Your task to perform on an android device: turn pop-ups on in chrome Image 0: 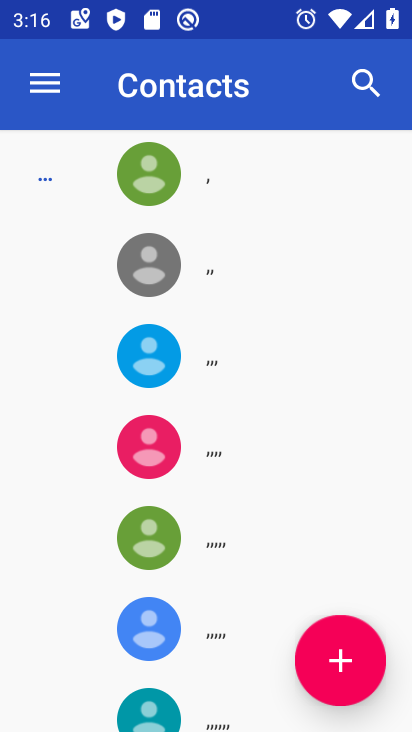
Step 0: press home button
Your task to perform on an android device: turn pop-ups on in chrome Image 1: 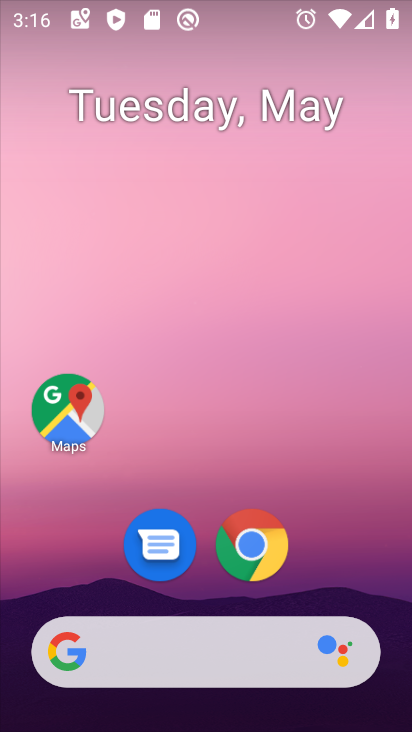
Step 1: click (258, 559)
Your task to perform on an android device: turn pop-ups on in chrome Image 2: 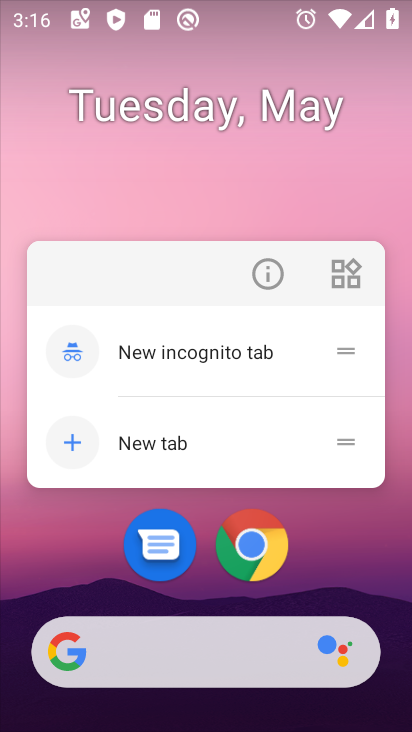
Step 2: click (258, 560)
Your task to perform on an android device: turn pop-ups on in chrome Image 3: 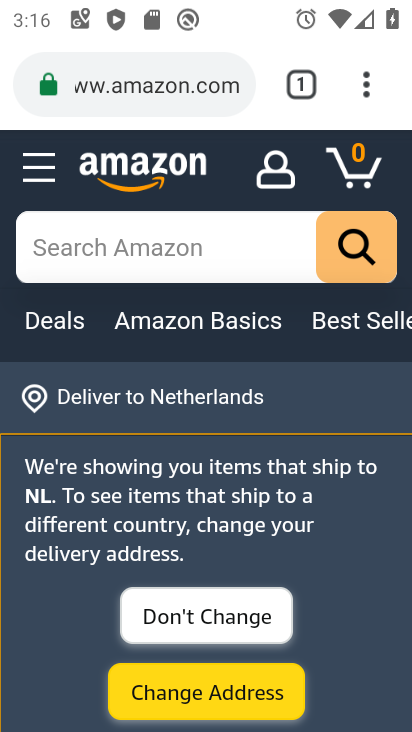
Step 3: drag from (375, 103) to (116, 629)
Your task to perform on an android device: turn pop-ups on in chrome Image 4: 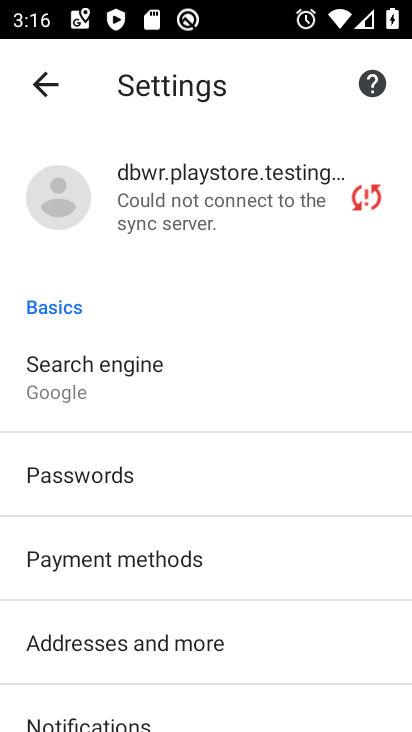
Step 4: drag from (203, 508) to (125, 56)
Your task to perform on an android device: turn pop-ups on in chrome Image 5: 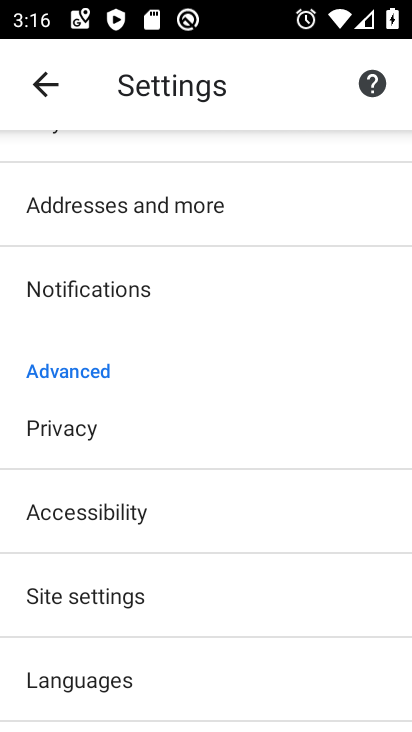
Step 5: click (193, 583)
Your task to perform on an android device: turn pop-ups on in chrome Image 6: 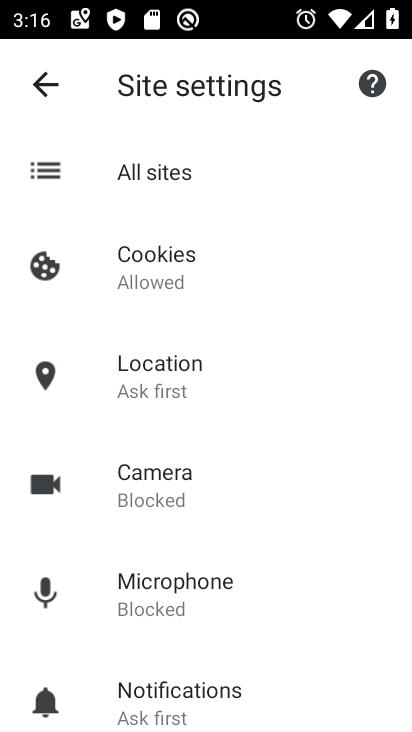
Step 6: drag from (184, 464) to (168, 49)
Your task to perform on an android device: turn pop-ups on in chrome Image 7: 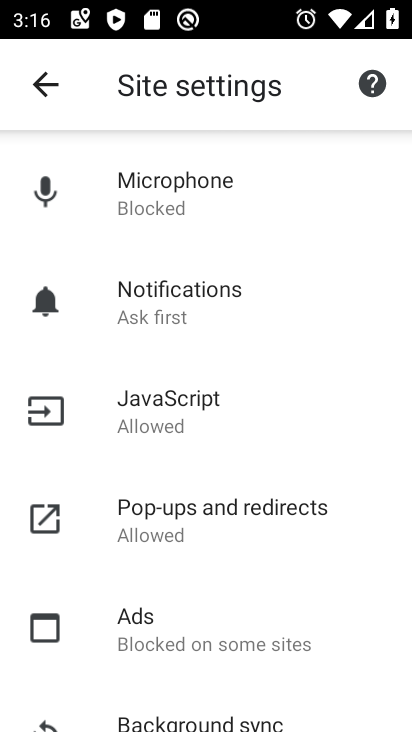
Step 7: click (272, 511)
Your task to perform on an android device: turn pop-ups on in chrome Image 8: 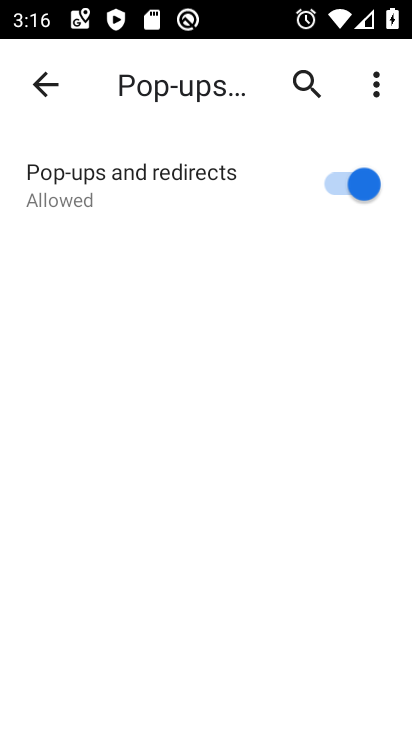
Step 8: task complete